Your task to perform on an android device: Open the Play Movies app and select the watchlist tab. Image 0: 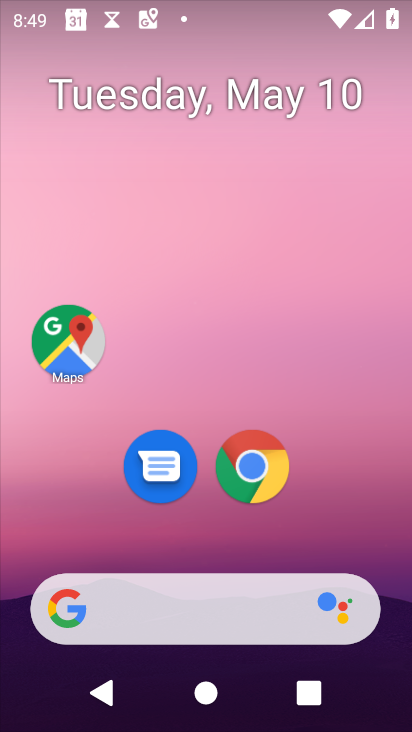
Step 0: drag from (292, 546) to (408, 199)
Your task to perform on an android device: Open the Play Movies app and select the watchlist tab. Image 1: 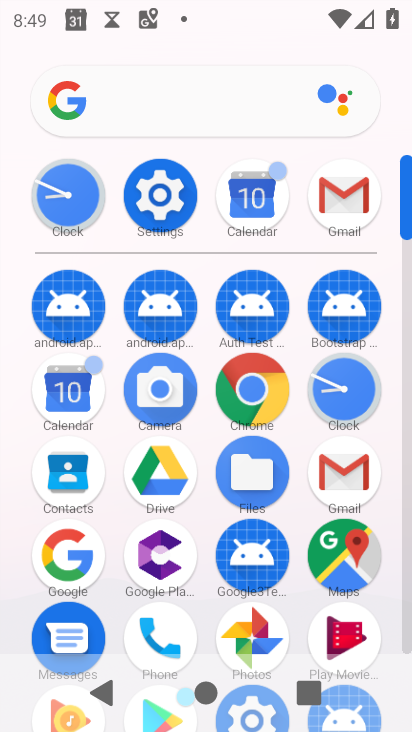
Step 1: click (334, 630)
Your task to perform on an android device: Open the Play Movies app and select the watchlist tab. Image 2: 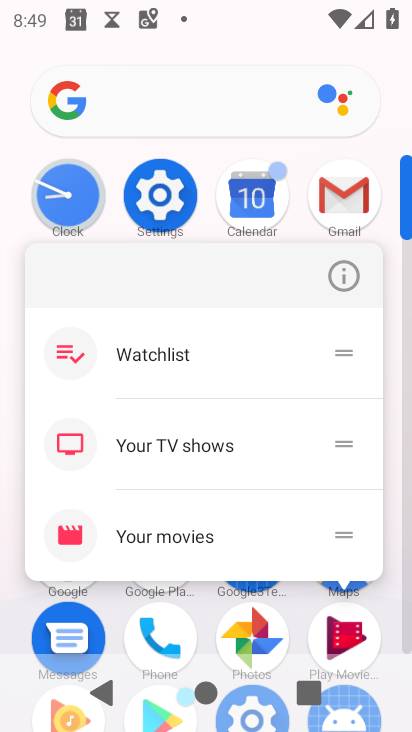
Step 2: click (335, 628)
Your task to perform on an android device: Open the Play Movies app and select the watchlist tab. Image 3: 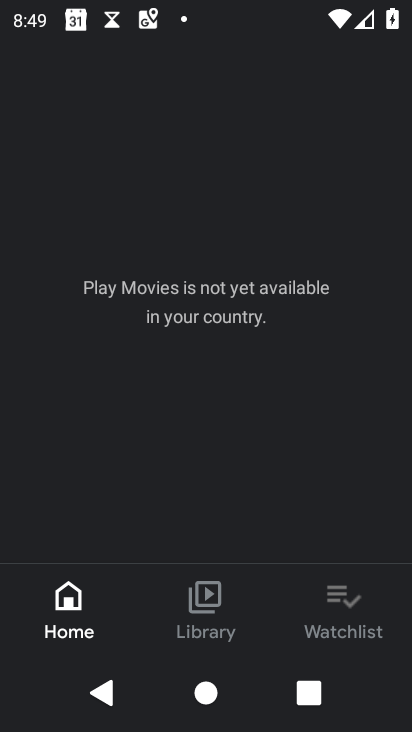
Step 3: click (335, 628)
Your task to perform on an android device: Open the Play Movies app and select the watchlist tab. Image 4: 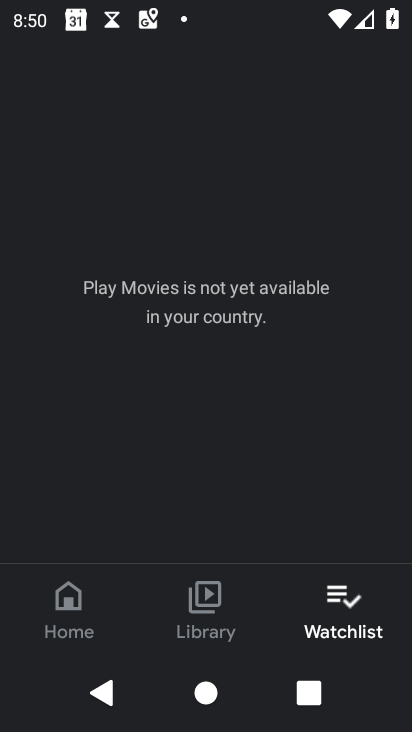
Step 4: task complete